Your task to perform on an android device: When is my next meeting? Image 0: 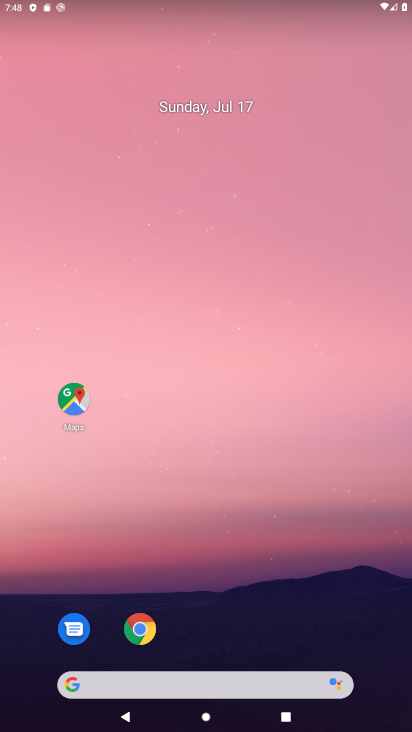
Step 0: drag from (281, 641) to (274, 112)
Your task to perform on an android device: When is my next meeting? Image 1: 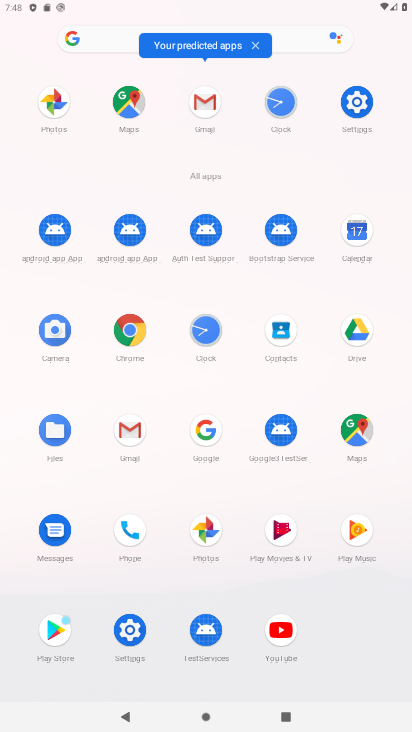
Step 1: click (361, 230)
Your task to perform on an android device: When is my next meeting? Image 2: 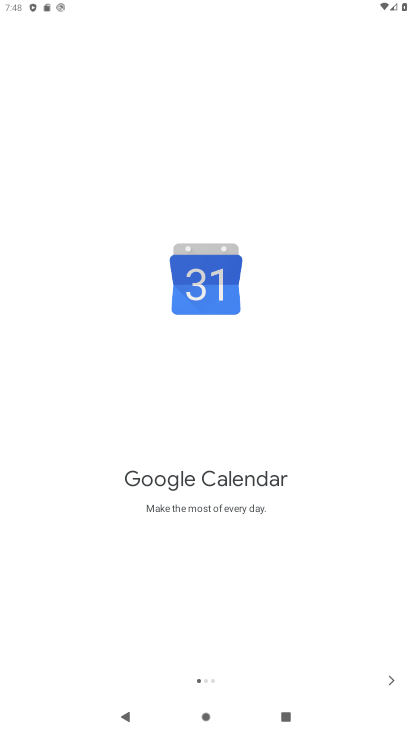
Step 2: click (392, 675)
Your task to perform on an android device: When is my next meeting? Image 3: 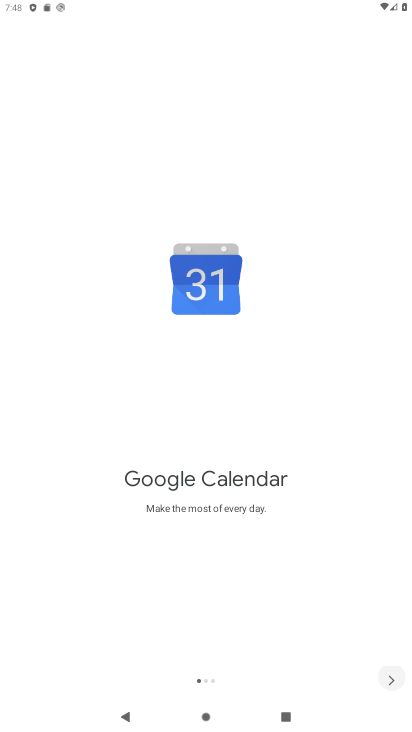
Step 3: click (392, 669)
Your task to perform on an android device: When is my next meeting? Image 4: 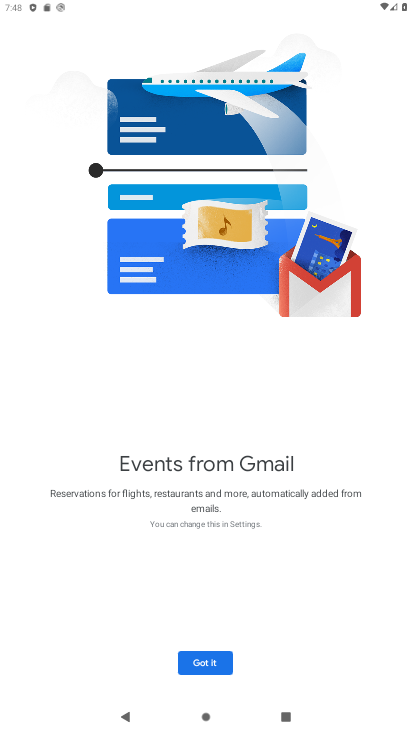
Step 4: click (191, 665)
Your task to perform on an android device: When is my next meeting? Image 5: 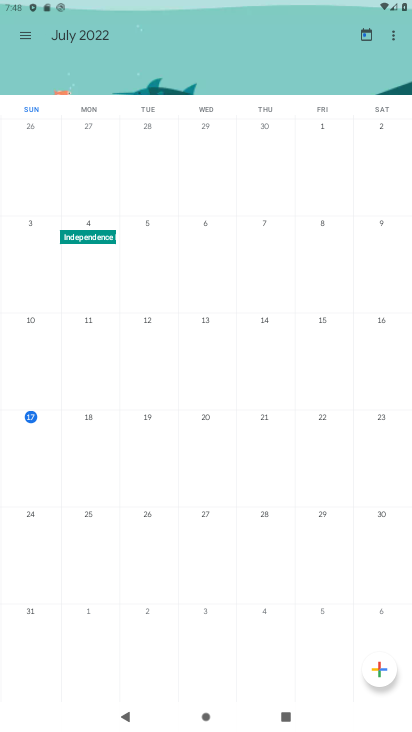
Step 5: click (24, 30)
Your task to perform on an android device: When is my next meeting? Image 6: 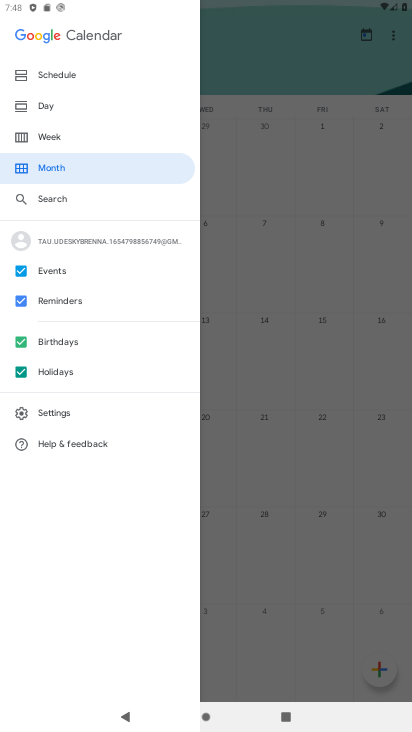
Step 6: click (56, 141)
Your task to perform on an android device: When is my next meeting? Image 7: 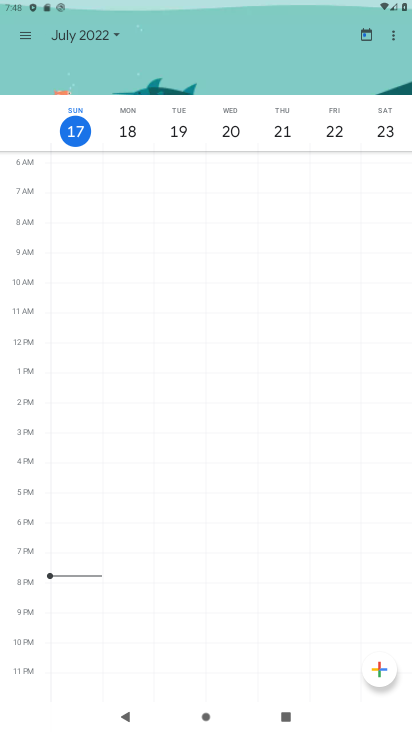
Step 7: task complete